Your task to perform on an android device: Open display settings Image 0: 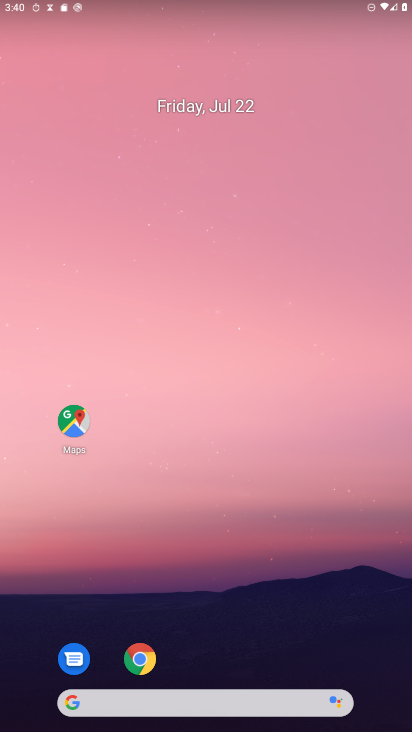
Step 0: drag from (274, 659) to (224, 6)
Your task to perform on an android device: Open display settings Image 1: 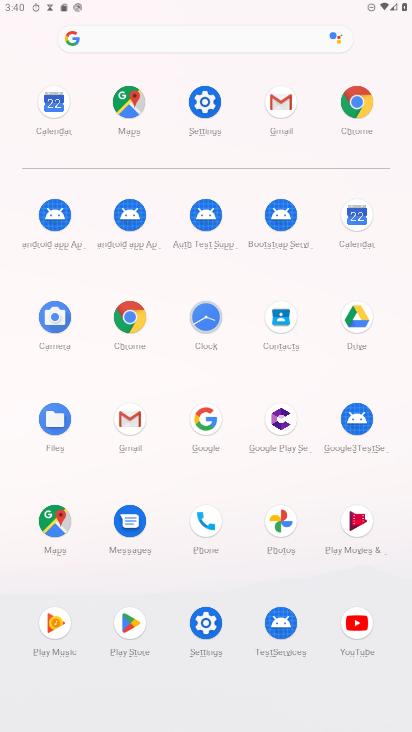
Step 1: click (209, 104)
Your task to perform on an android device: Open display settings Image 2: 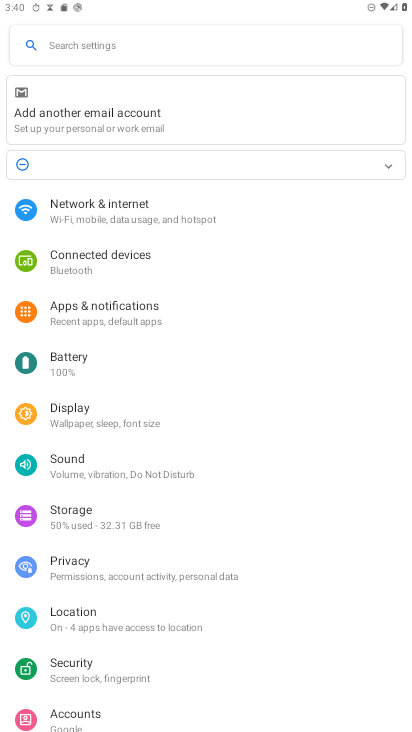
Step 2: click (85, 414)
Your task to perform on an android device: Open display settings Image 3: 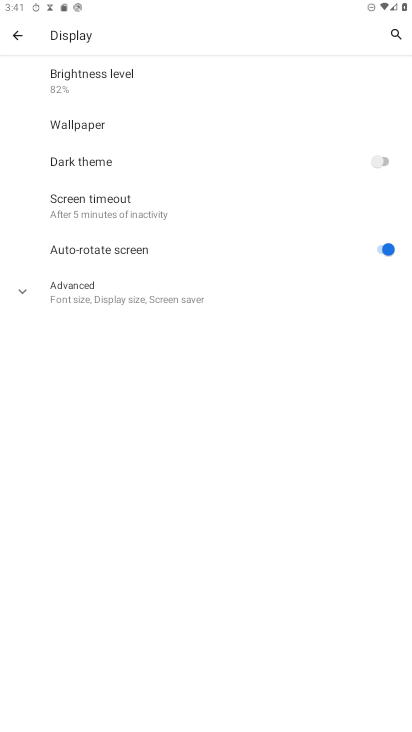
Step 3: task complete